Your task to perform on an android device: Open Google Chrome and click the shortcut for Amazon.com Image 0: 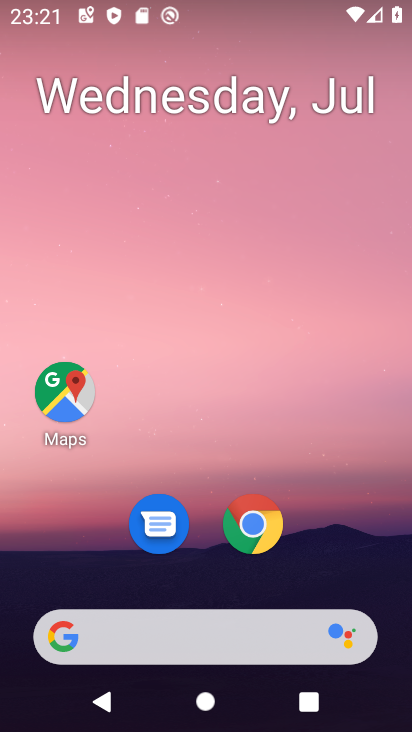
Step 0: click (257, 528)
Your task to perform on an android device: Open Google Chrome and click the shortcut for Amazon.com Image 1: 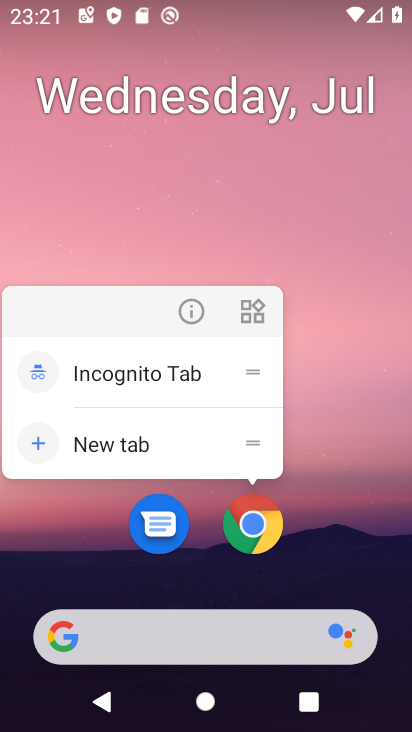
Step 1: click (257, 528)
Your task to perform on an android device: Open Google Chrome and click the shortcut for Amazon.com Image 2: 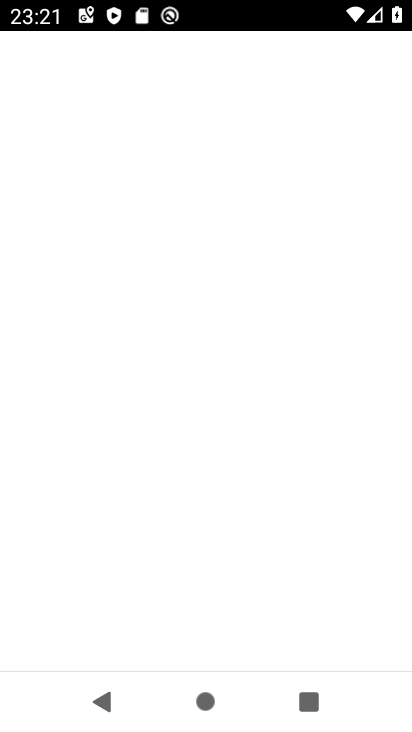
Step 2: click (247, 530)
Your task to perform on an android device: Open Google Chrome and click the shortcut for Amazon.com Image 3: 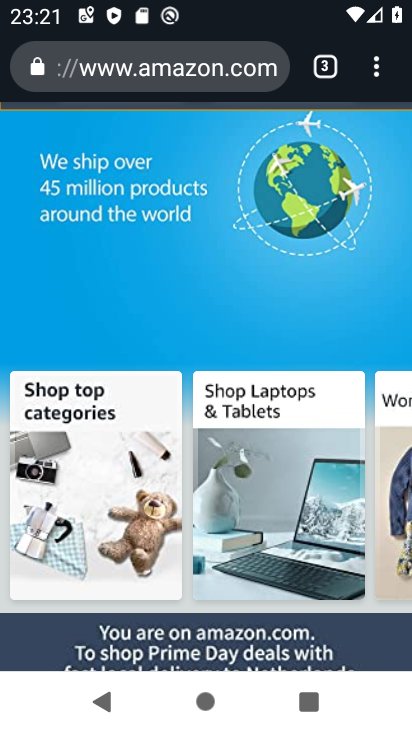
Step 3: task complete